Your task to perform on an android device: Open Google Chrome and click the shortcut for Amazon.com Image 0: 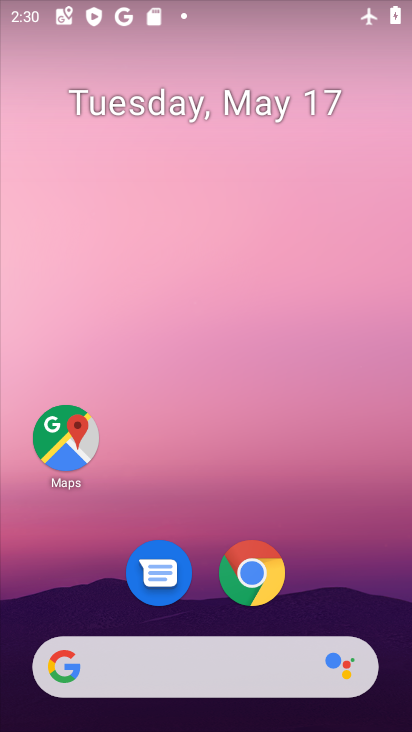
Step 0: drag from (343, 593) to (327, 200)
Your task to perform on an android device: Open Google Chrome and click the shortcut for Amazon.com Image 1: 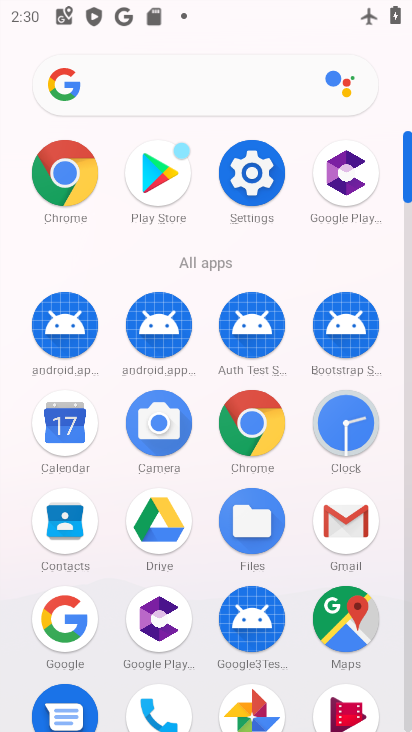
Step 1: click (247, 444)
Your task to perform on an android device: Open Google Chrome and click the shortcut for Amazon.com Image 2: 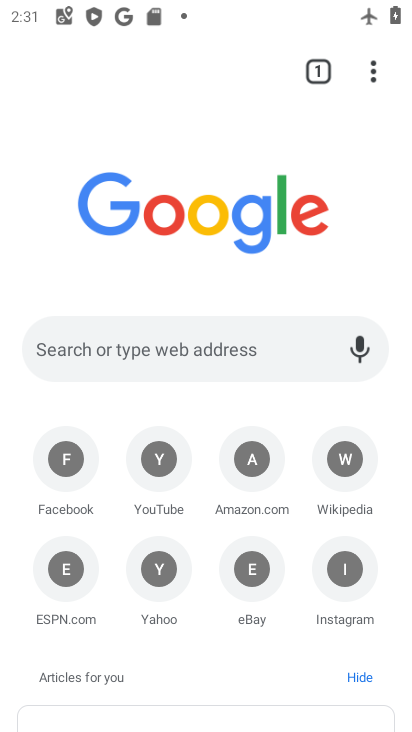
Step 2: click (237, 460)
Your task to perform on an android device: Open Google Chrome and click the shortcut for Amazon.com Image 3: 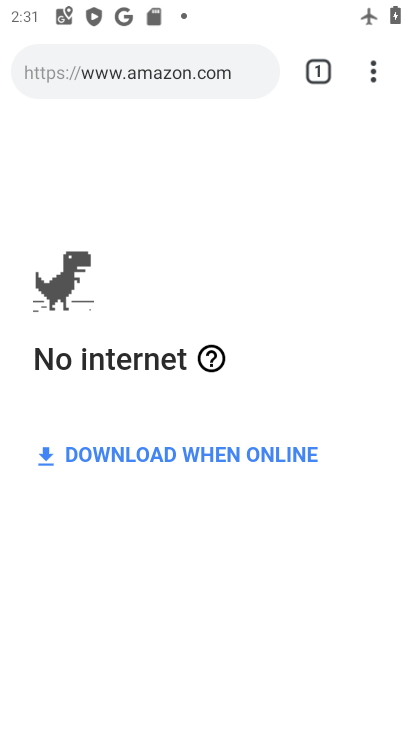
Step 3: task complete